Your task to perform on an android device: add a label to a message in the gmail app Image 0: 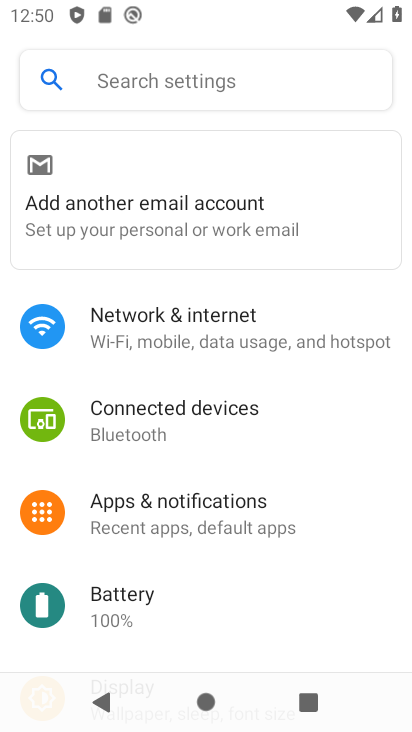
Step 0: press home button
Your task to perform on an android device: add a label to a message in the gmail app Image 1: 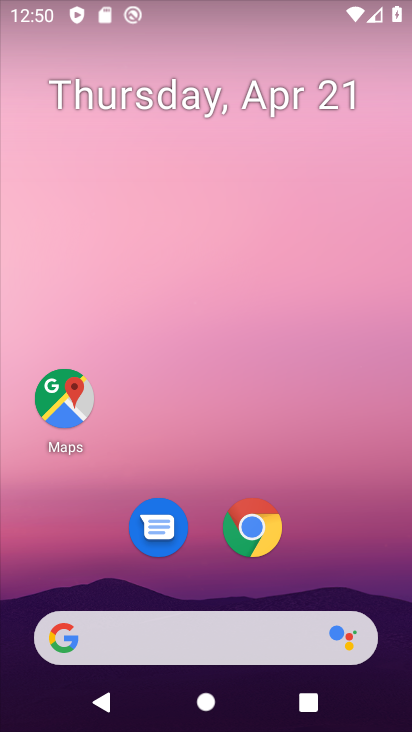
Step 1: drag from (329, 562) to (354, 93)
Your task to perform on an android device: add a label to a message in the gmail app Image 2: 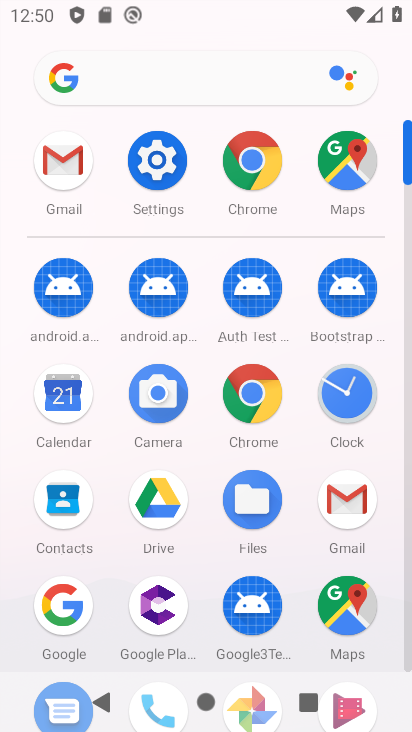
Step 2: click (339, 520)
Your task to perform on an android device: add a label to a message in the gmail app Image 3: 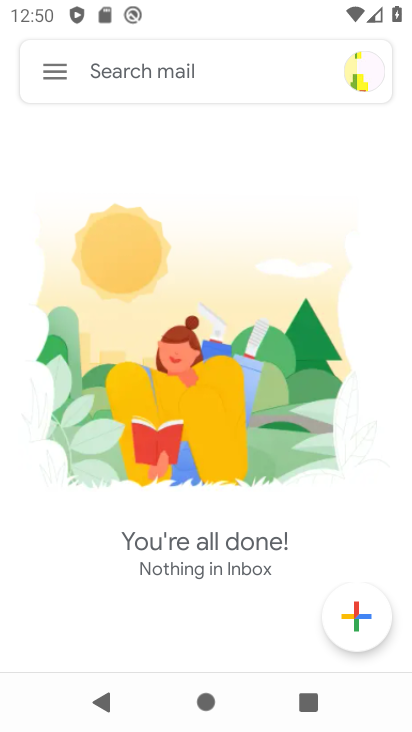
Step 3: click (57, 73)
Your task to perform on an android device: add a label to a message in the gmail app Image 4: 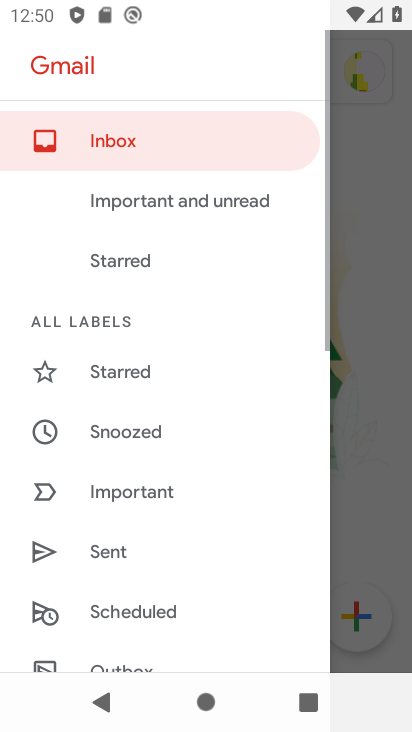
Step 4: drag from (236, 540) to (273, 310)
Your task to perform on an android device: add a label to a message in the gmail app Image 5: 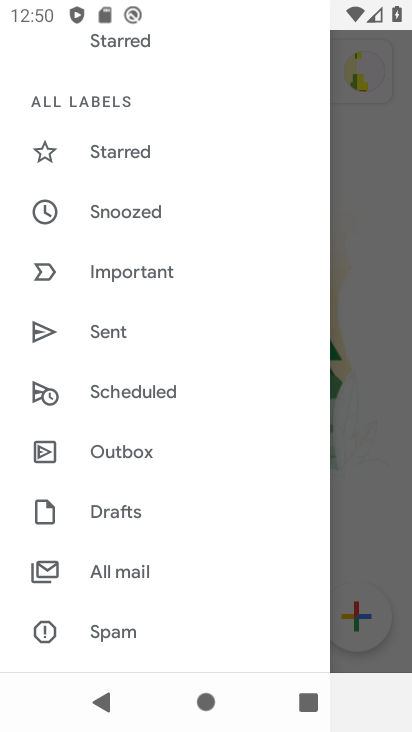
Step 5: drag from (250, 568) to (273, 306)
Your task to perform on an android device: add a label to a message in the gmail app Image 6: 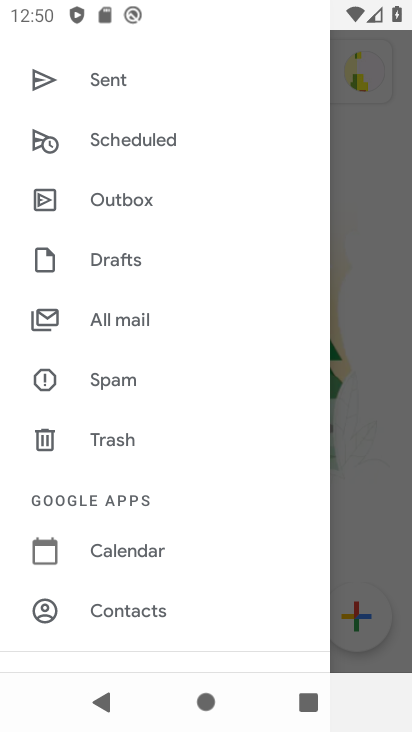
Step 6: drag from (255, 589) to (245, 341)
Your task to perform on an android device: add a label to a message in the gmail app Image 7: 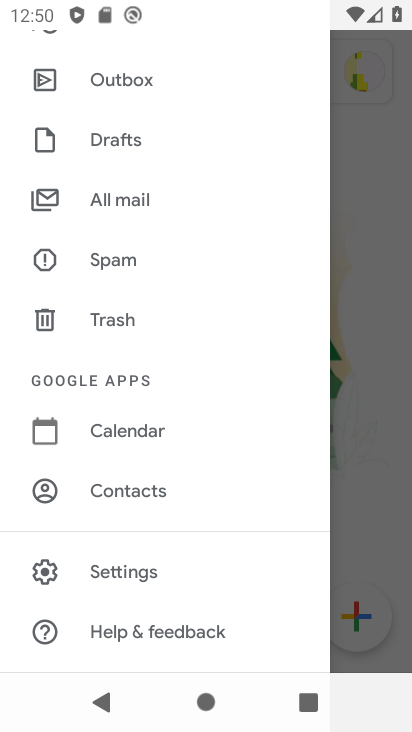
Step 7: drag from (244, 275) to (266, 514)
Your task to perform on an android device: add a label to a message in the gmail app Image 8: 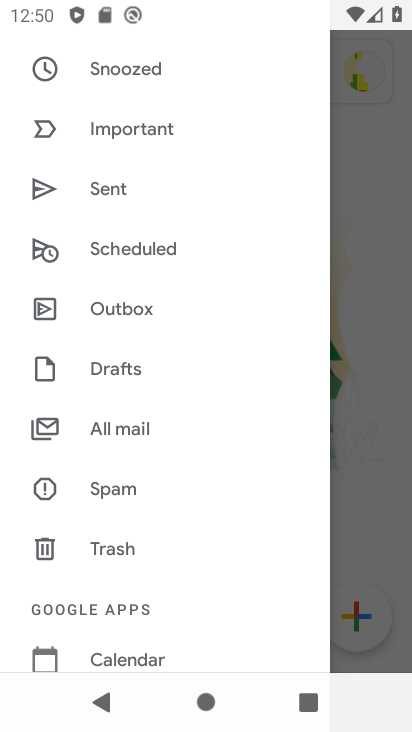
Step 8: drag from (253, 250) to (255, 470)
Your task to perform on an android device: add a label to a message in the gmail app Image 9: 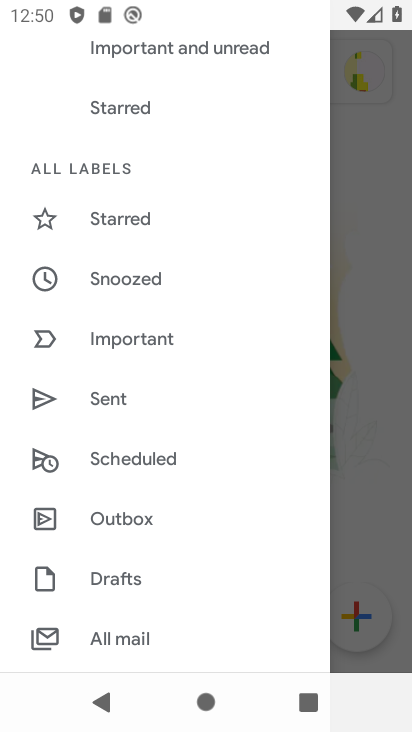
Step 9: drag from (259, 210) to (252, 439)
Your task to perform on an android device: add a label to a message in the gmail app Image 10: 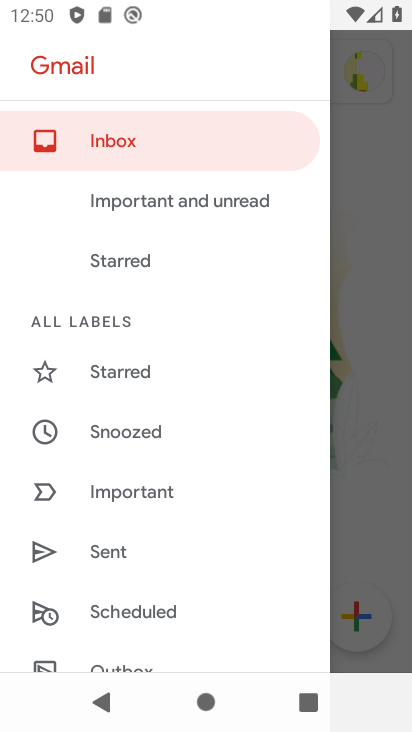
Step 10: click (143, 143)
Your task to perform on an android device: add a label to a message in the gmail app Image 11: 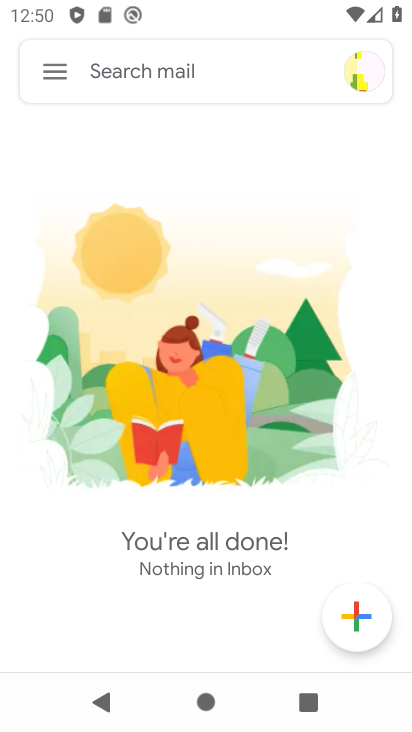
Step 11: task complete